Your task to perform on an android device: change the clock display to analog Image 0: 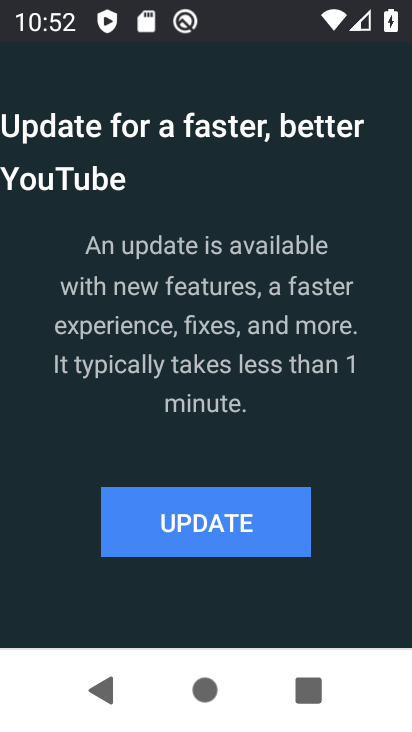
Step 0: press home button
Your task to perform on an android device: change the clock display to analog Image 1: 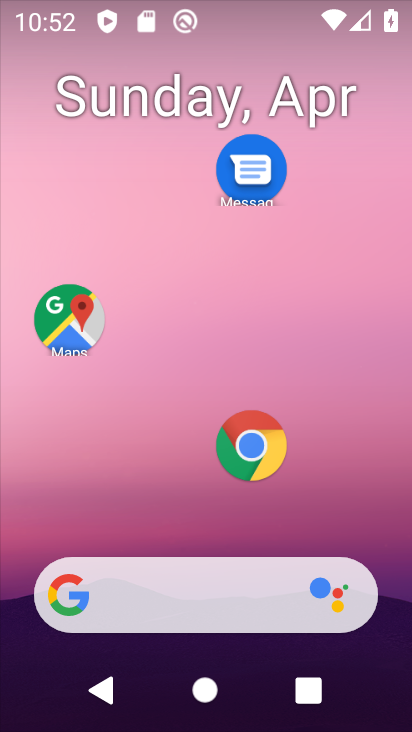
Step 1: drag from (204, 604) to (293, 99)
Your task to perform on an android device: change the clock display to analog Image 2: 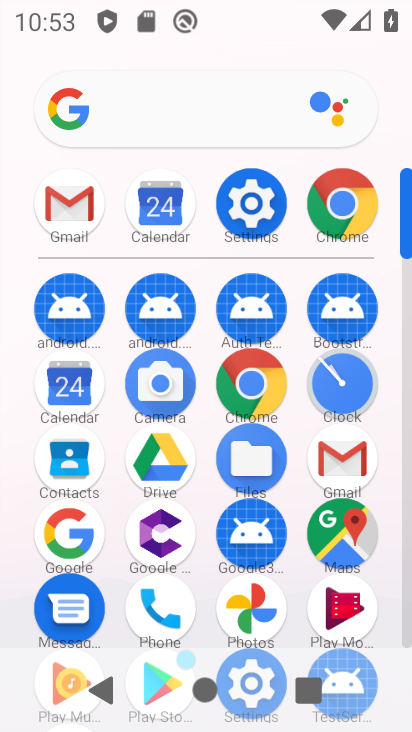
Step 2: click (346, 394)
Your task to perform on an android device: change the clock display to analog Image 3: 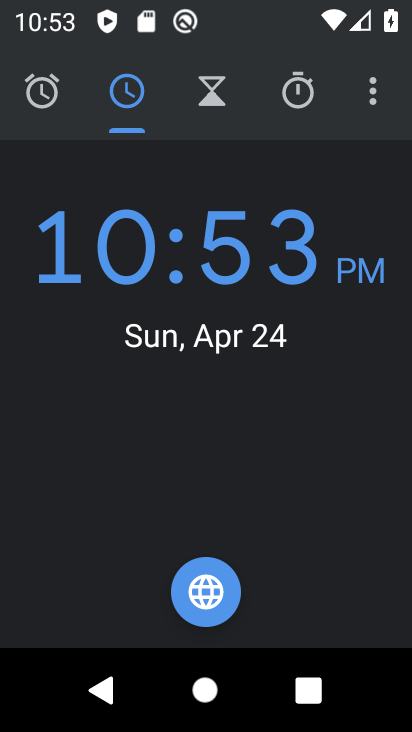
Step 3: click (369, 89)
Your task to perform on an android device: change the clock display to analog Image 4: 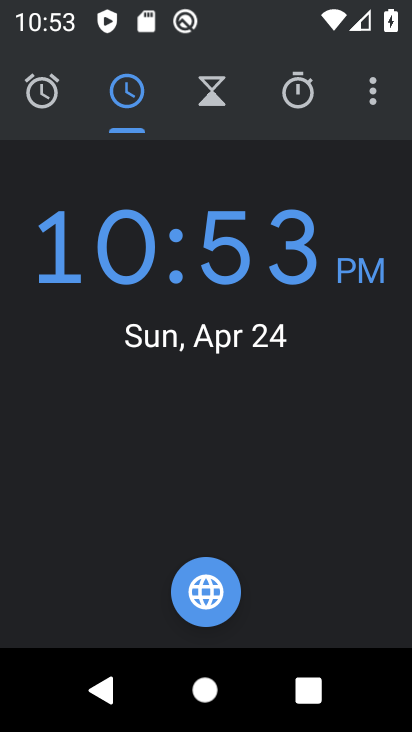
Step 4: click (370, 97)
Your task to perform on an android device: change the clock display to analog Image 5: 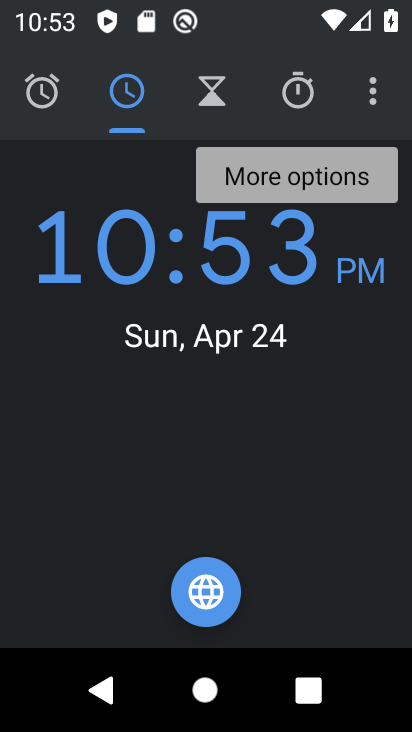
Step 5: click (375, 104)
Your task to perform on an android device: change the clock display to analog Image 6: 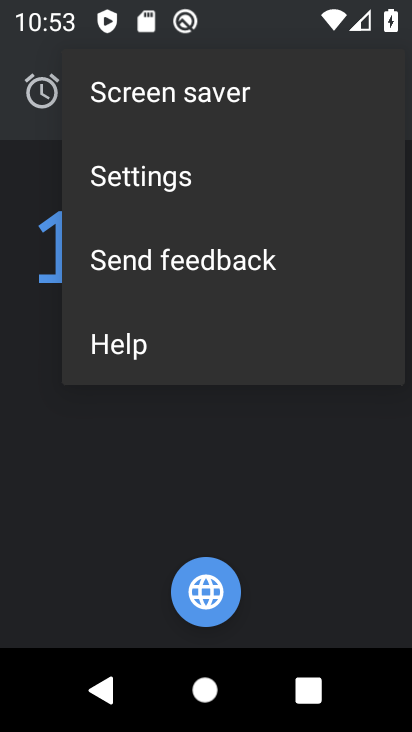
Step 6: click (163, 192)
Your task to perform on an android device: change the clock display to analog Image 7: 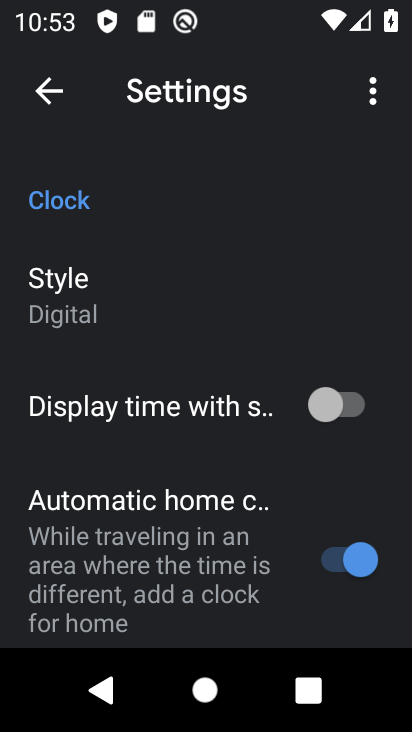
Step 7: click (74, 302)
Your task to perform on an android device: change the clock display to analog Image 8: 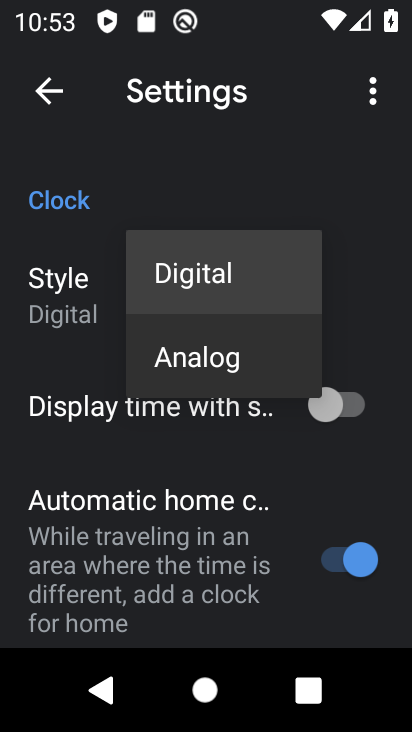
Step 8: click (191, 355)
Your task to perform on an android device: change the clock display to analog Image 9: 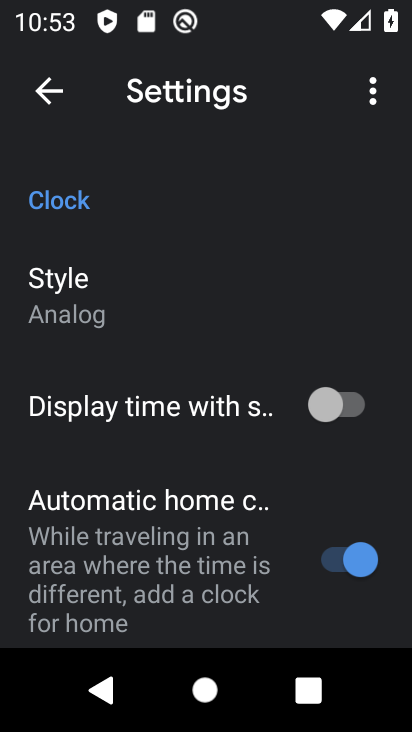
Step 9: task complete